Your task to perform on an android device: Open CNN.com Image 0: 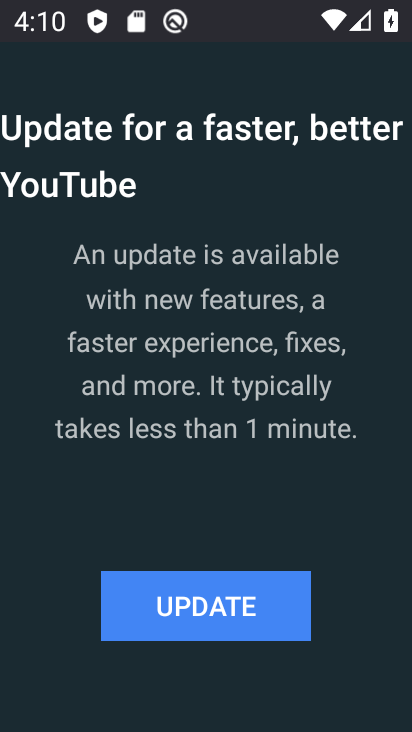
Step 0: press home button
Your task to perform on an android device: Open CNN.com Image 1: 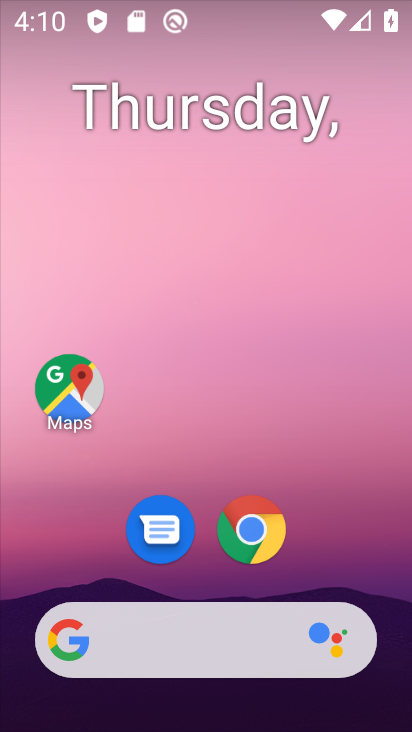
Step 1: click (250, 539)
Your task to perform on an android device: Open CNN.com Image 2: 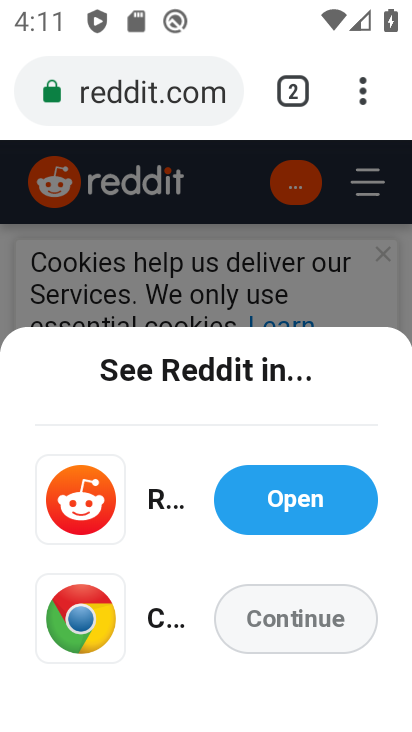
Step 2: click (362, 99)
Your task to perform on an android device: Open CNN.com Image 3: 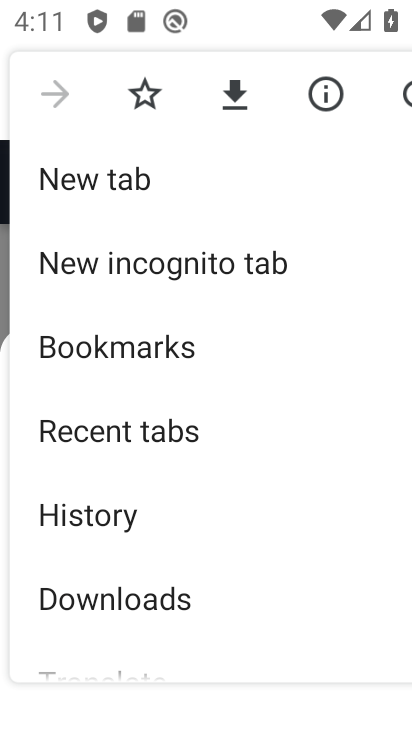
Step 3: click (117, 174)
Your task to perform on an android device: Open CNN.com Image 4: 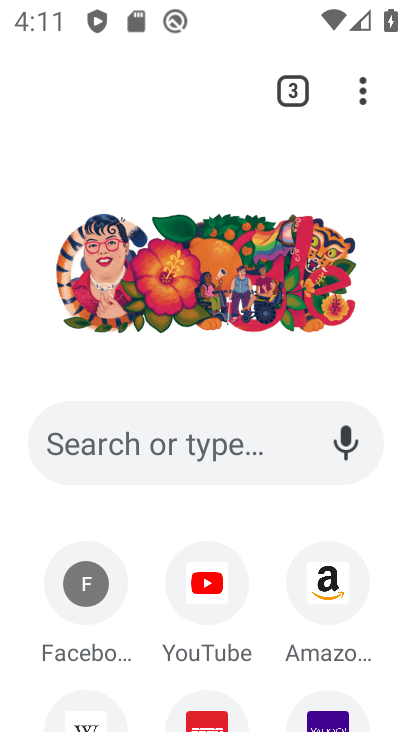
Step 4: click (206, 451)
Your task to perform on an android device: Open CNN.com Image 5: 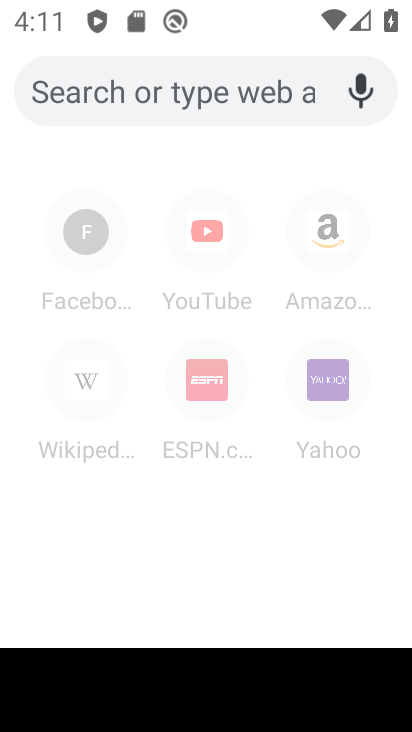
Step 5: type "CNN.com"
Your task to perform on an android device: Open CNN.com Image 6: 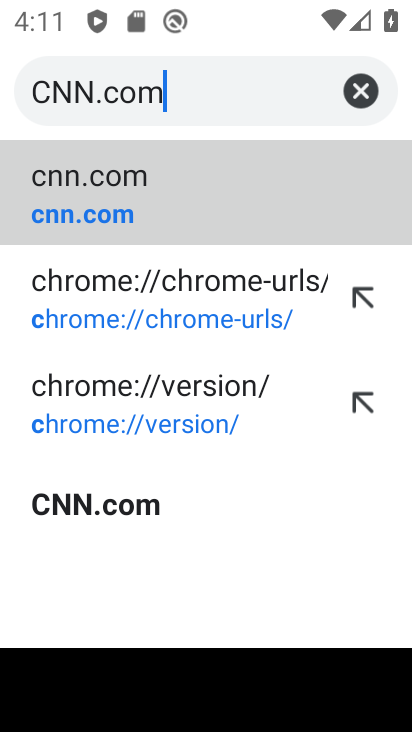
Step 6: type ""
Your task to perform on an android device: Open CNN.com Image 7: 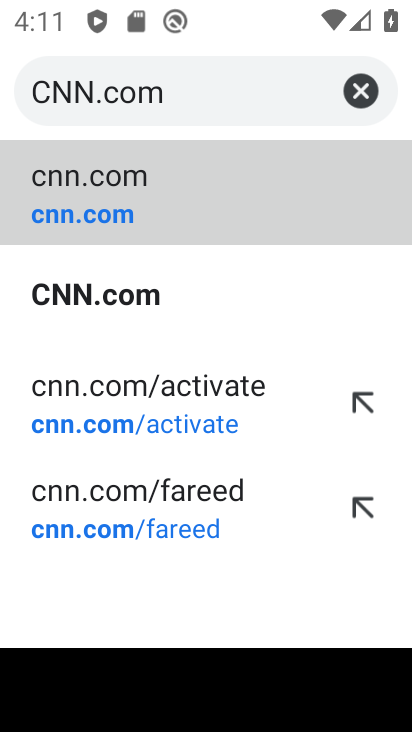
Step 7: click (90, 209)
Your task to perform on an android device: Open CNN.com Image 8: 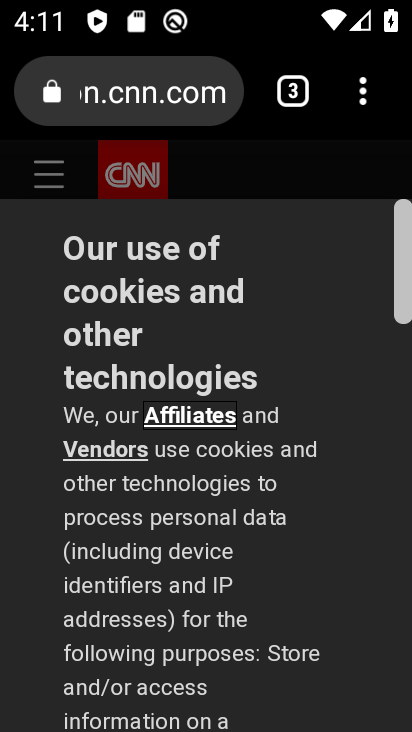
Step 8: task complete